Your task to perform on an android device: find photos in the google photos app Image 0: 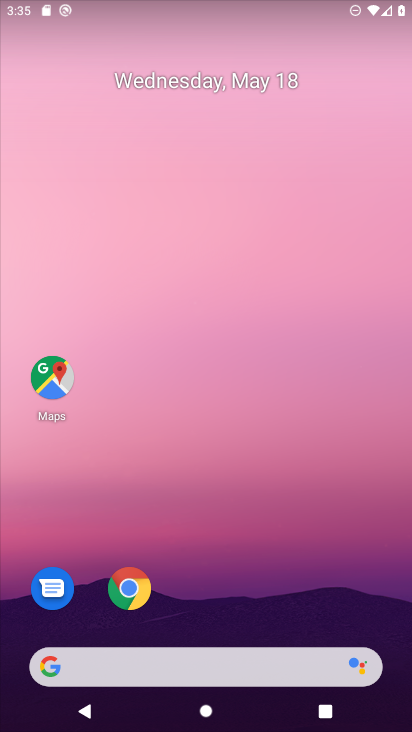
Step 0: click (129, 586)
Your task to perform on an android device: find photos in the google photos app Image 1: 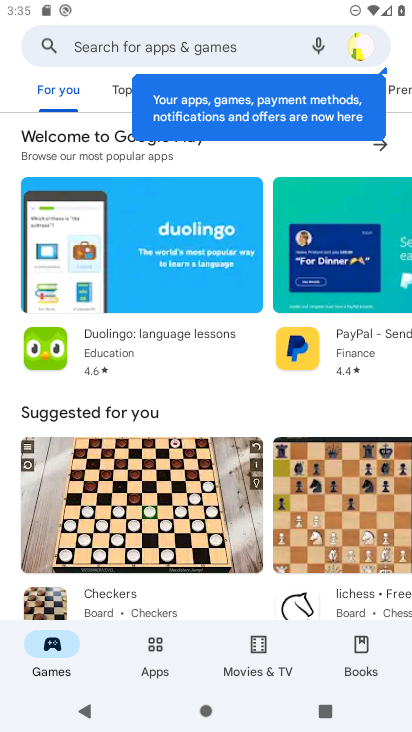
Step 1: press home button
Your task to perform on an android device: find photos in the google photos app Image 2: 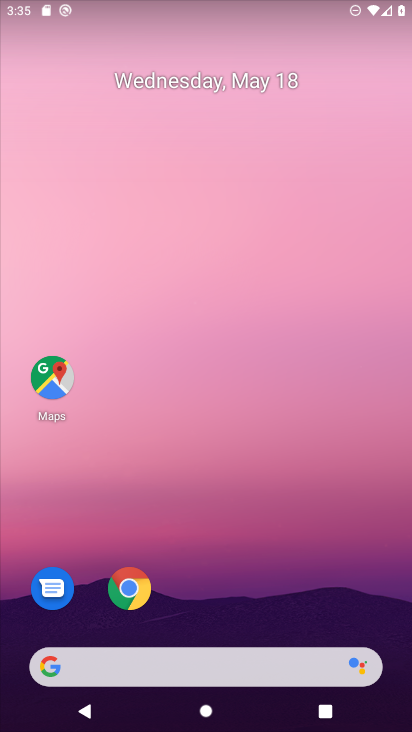
Step 2: drag from (260, 577) to (190, 132)
Your task to perform on an android device: find photos in the google photos app Image 3: 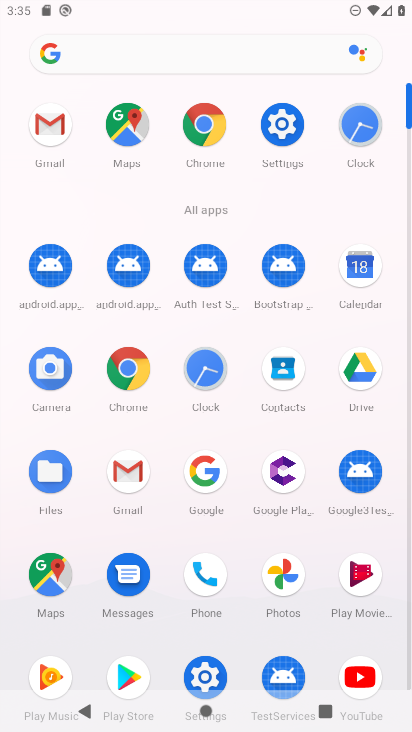
Step 3: click (278, 579)
Your task to perform on an android device: find photos in the google photos app Image 4: 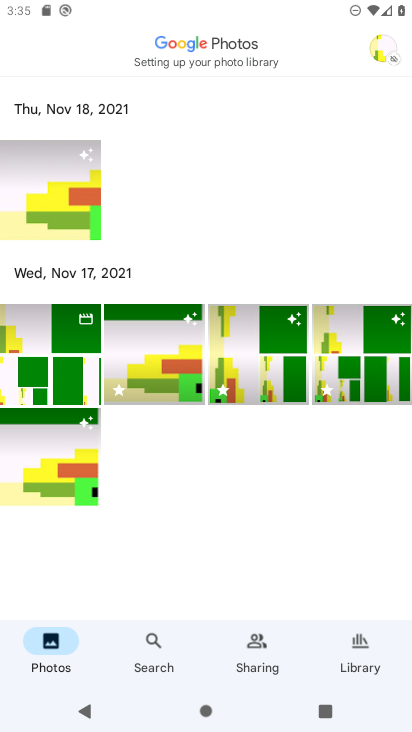
Step 4: task complete